Your task to perform on an android device: turn off picture-in-picture Image 0: 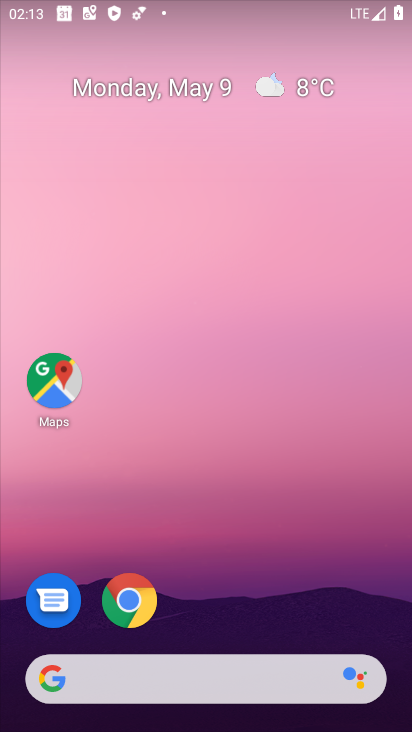
Step 0: click (129, 594)
Your task to perform on an android device: turn off picture-in-picture Image 1: 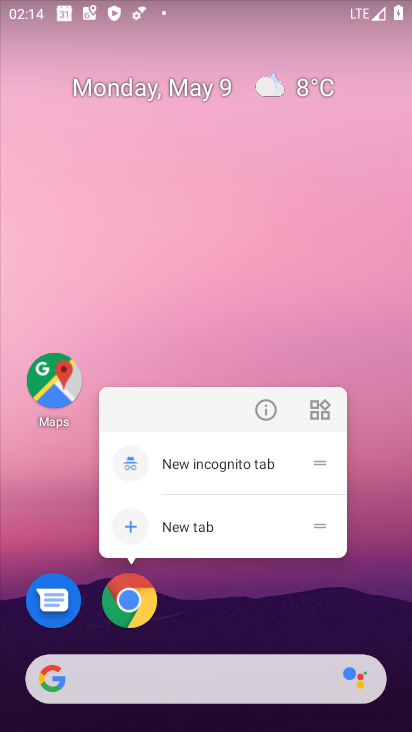
Step 1: click (267, 398)
Your task to perform on an android device: turn off picture-in-picture Image 2: 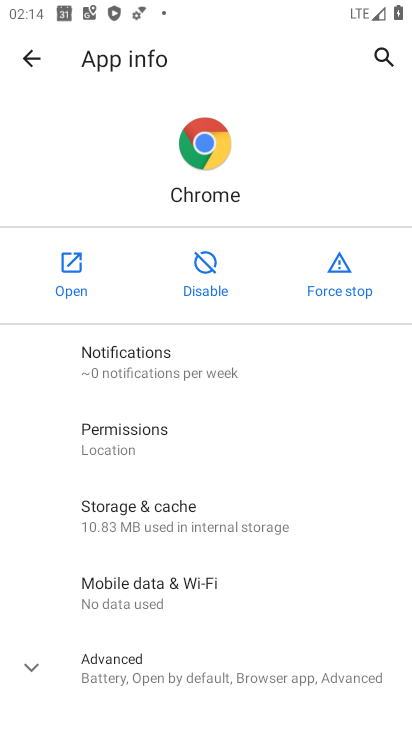
Step 2: click (94, 672)
Your task to perform on an android device: turn off picture-in-picture Image 3: 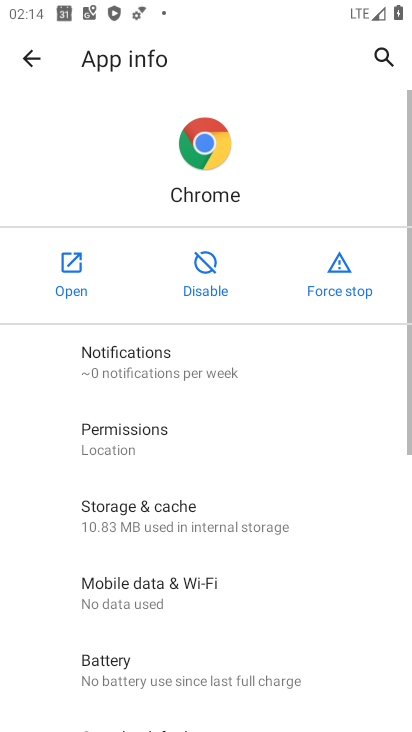
Step 3: drag from (166, 649) to (197, 221)
Your task to perform on an android device: turn off picture-in-picture Image 4: 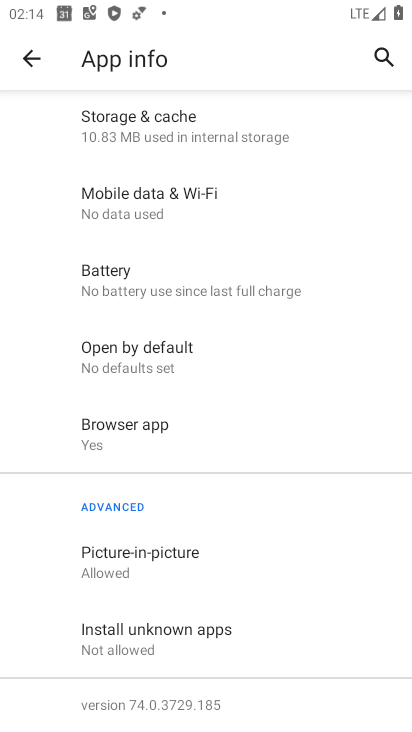
Step 4: click (141, 563)
Your task to perform on an android device: turn off picture-in-picture Image 5: 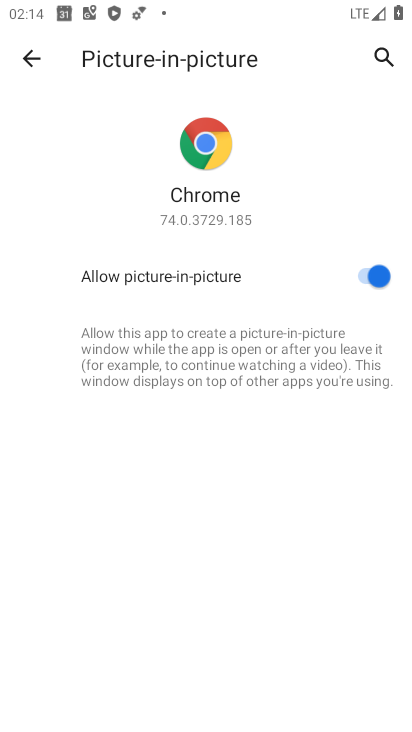
Step 5: click (370, 266)
Your task to perform on an android device: turn off picture-in-picture Image 6: 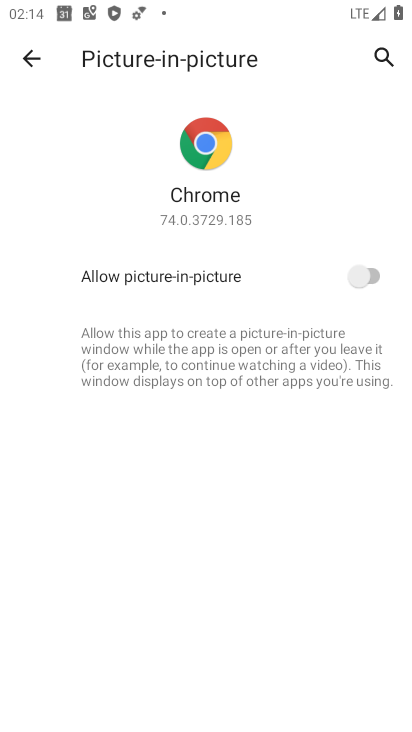
Step 6: task complete